Your task to perform on an android device: Go to privacy settings Image 0: 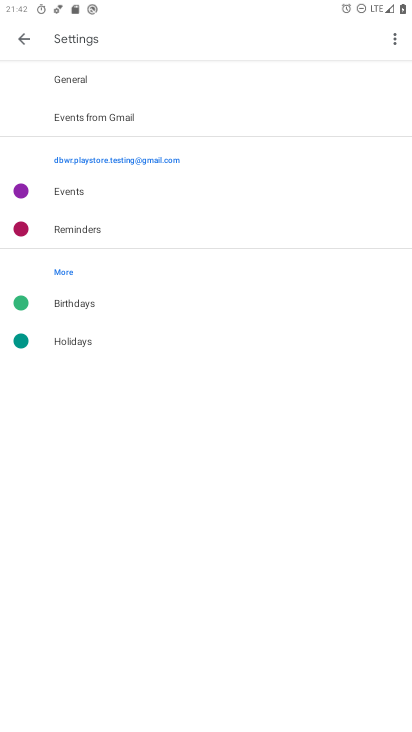
Step 0: press home button
Your task to perform on an android device: Go to privacy settings Image 1: 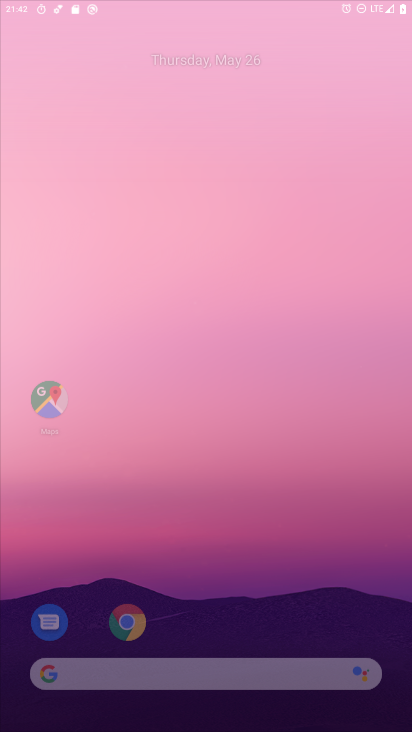
Step 1: drag from (123, 630) to (181, 15)
Your task to perform on an android device: Go to privacy settings Image 2: 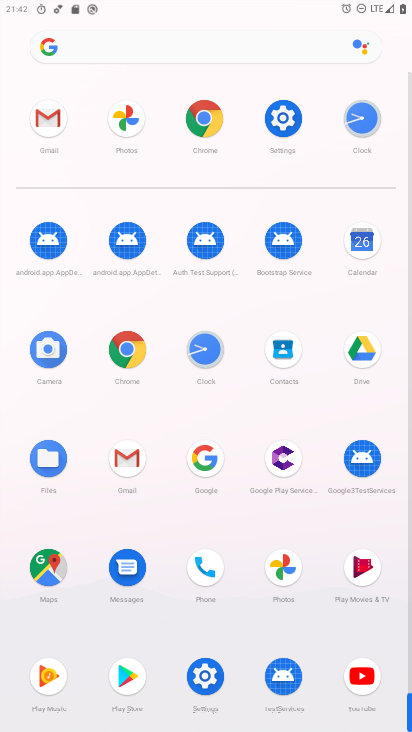
Step 2: click (205, 676)
Your task to perform on an android device: Go to privacy settings Image 3: 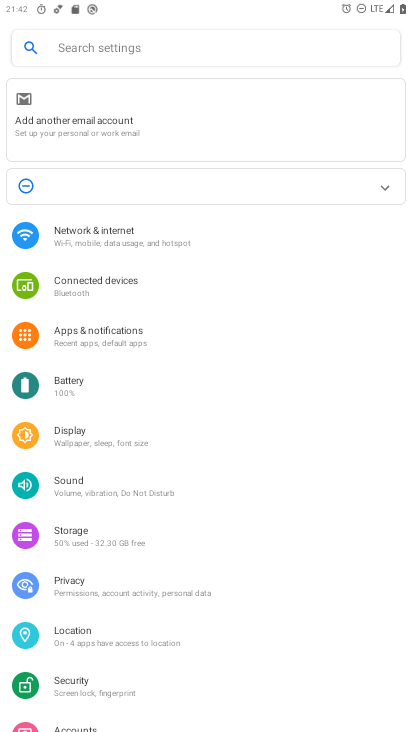
Step 3: click (110, 591)
Your task to perform on an android device: Go to privacy settings Image 4: 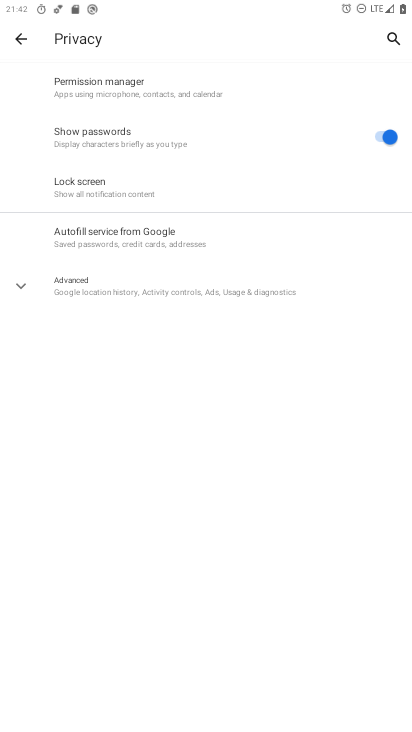
Step 4: task complete